Your task to perform on an android device: Open Chrome and go to the settings page Image 0: 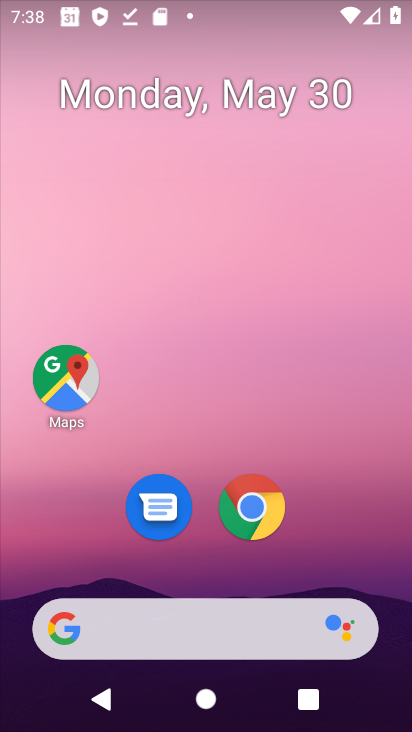
Step 0: drag from (359, 524) to (309, 213)
Your task to perform on an android device: Open Chrome and go to the settings page Image 1: 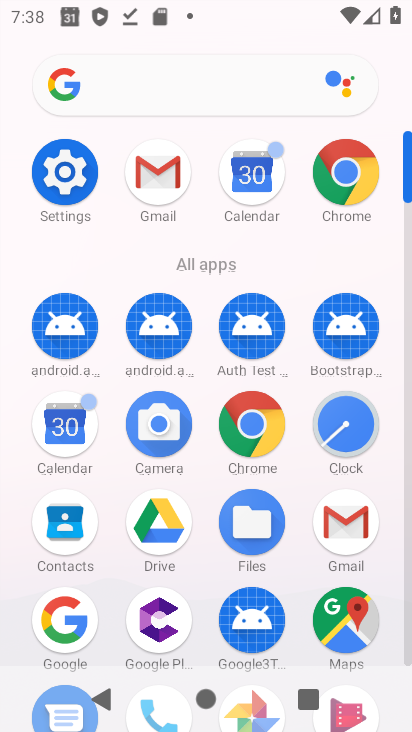
Step 1: click (237, 422)
Your task to perform on an android device: Open Chrome and go to the settings page Image 2: 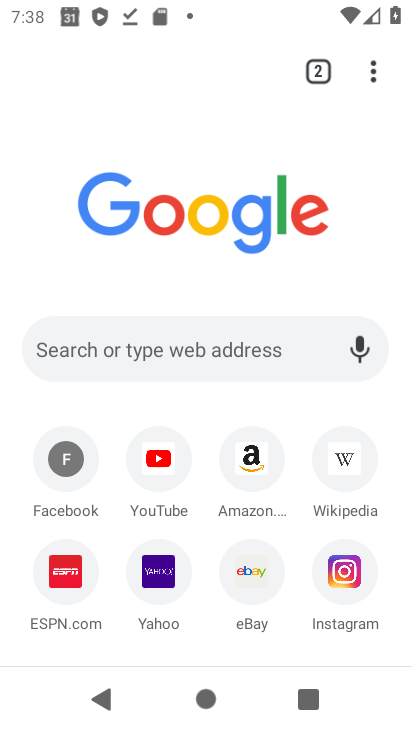
Step 2: task complete